Your task to perform on an android device: Open display settings Image 0: 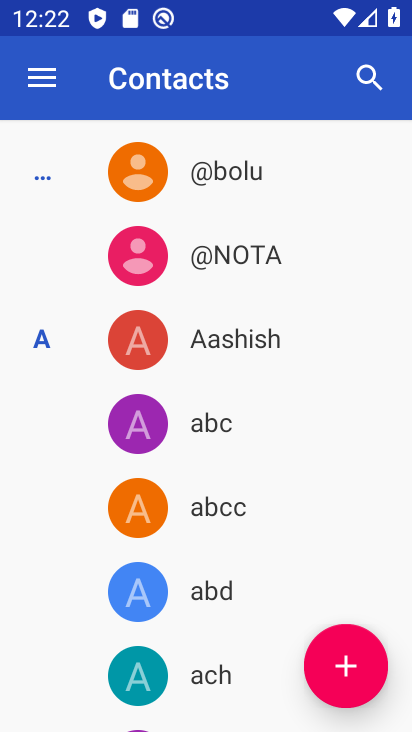
Step 0: press home button
Your task to perform on an android device: Open display settings Image 1: 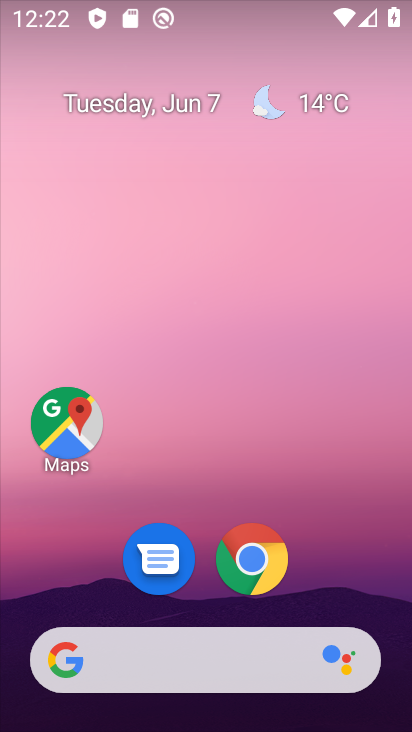
Step 1: drag from (116, 619) to (267, 140)
Your task to perform on an android device: Open display settings Image 2: 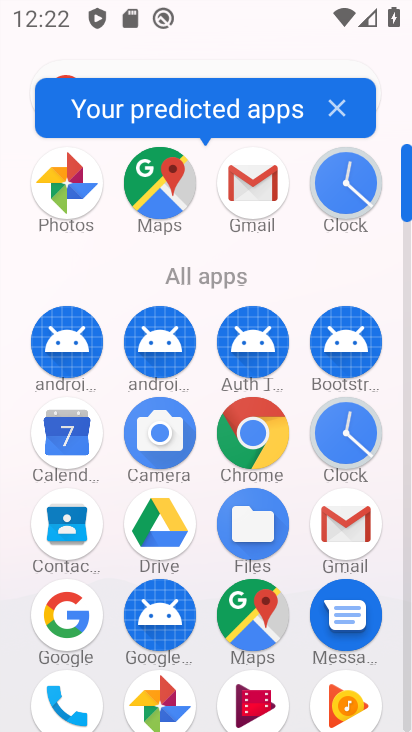
Step 2: drag from (172, 579) to (240, 377)
Your task to perform on an android device: Open display settings Image 3: 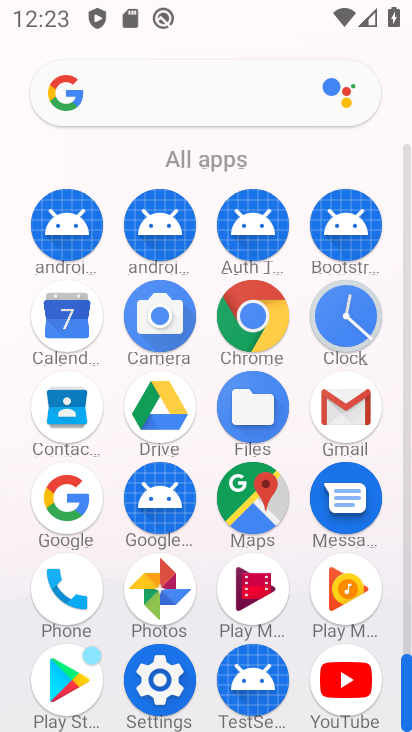
Step 3: click (152, 686)
Your task to perform on an android device: Open display settings Image 4: 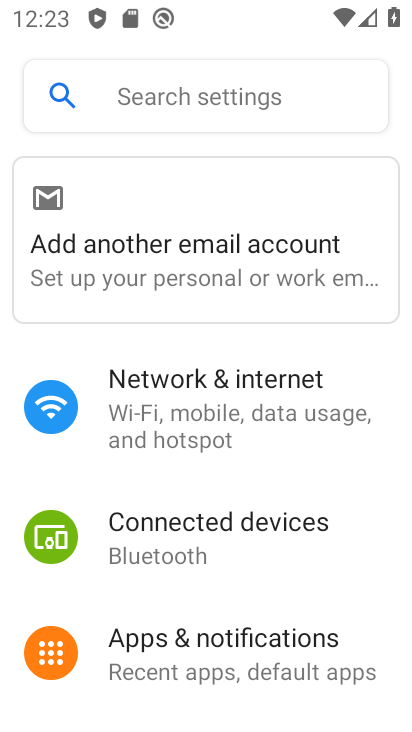
Step 4: drag from (215, 638) to (324, 238)
Your task to perform on an android device: Open display settings Image 5: 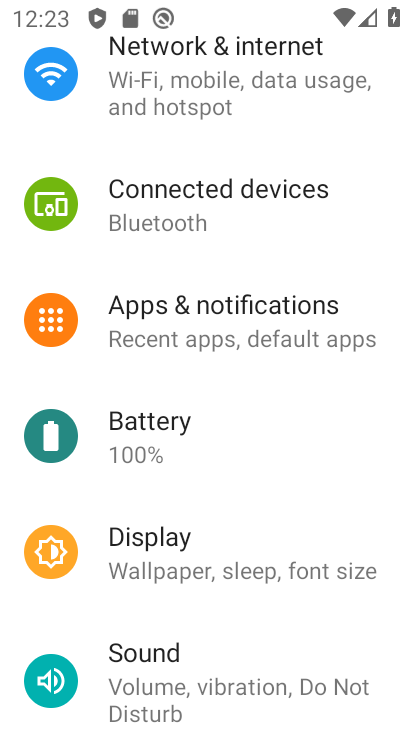
Step 5: click (213, 572)
Your task to perform on an android device: Open display settings Image 6: 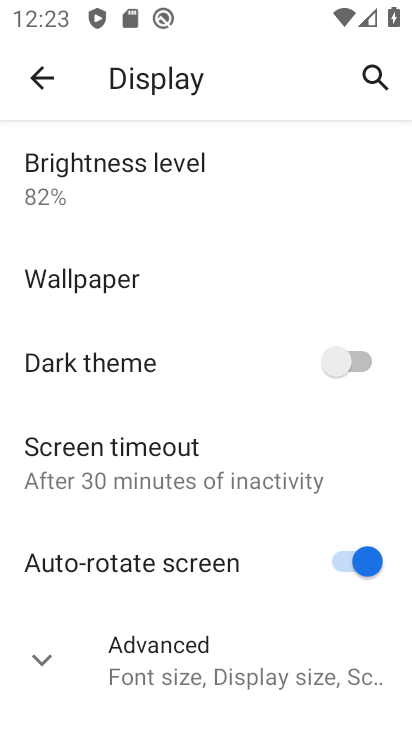
Step 6: task complete